Your task to perform on an android device: Do I have any events today? Image 0: 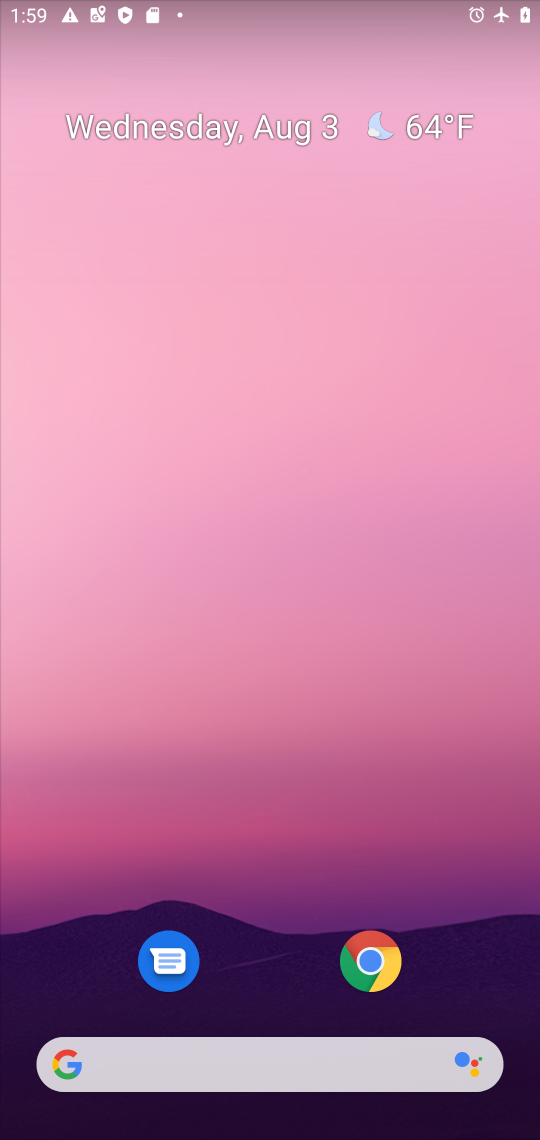
Step 0: drag from (275, 925) to (296, 68)
Your task to perform on an android device: Do I have any events today? Image 1: 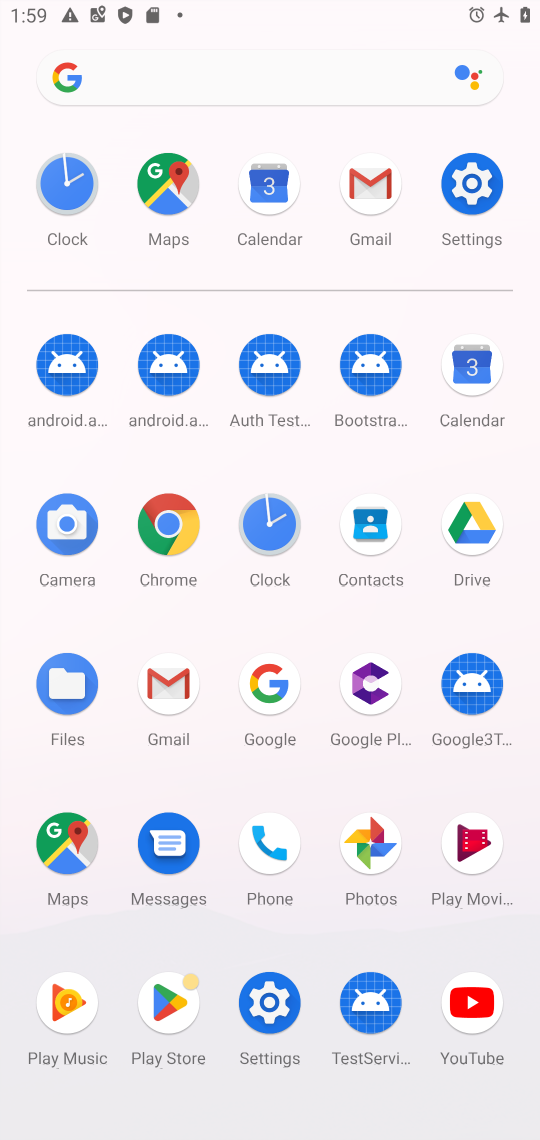
Step 1: click (464, 373)
Your task to perform on an android device: Do I have any events today? Image 2: 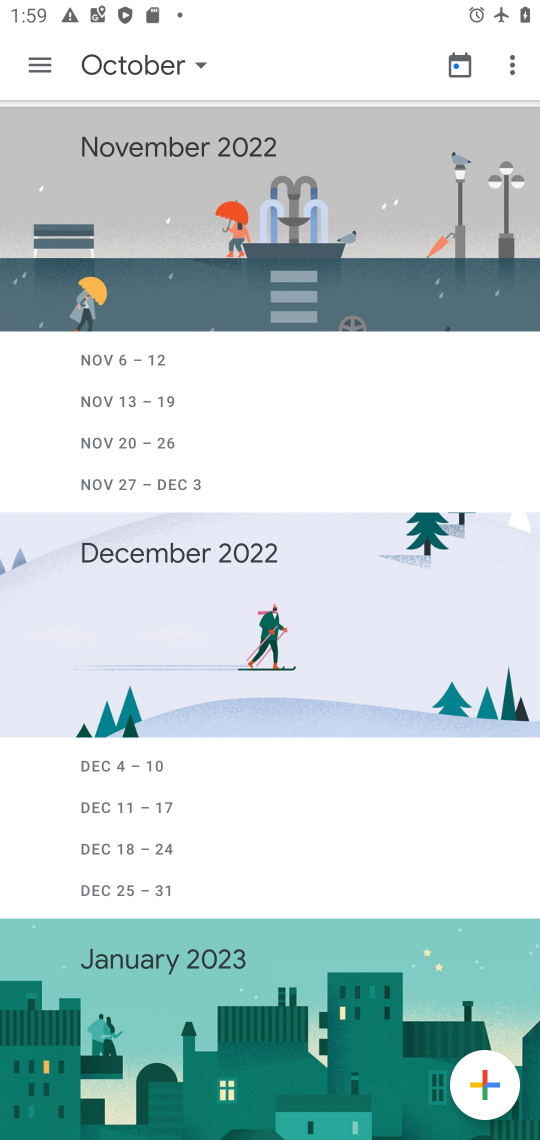
Step 2: click (34, 59)
Your task to perform on an android device: Do I have any events today? Image 3: 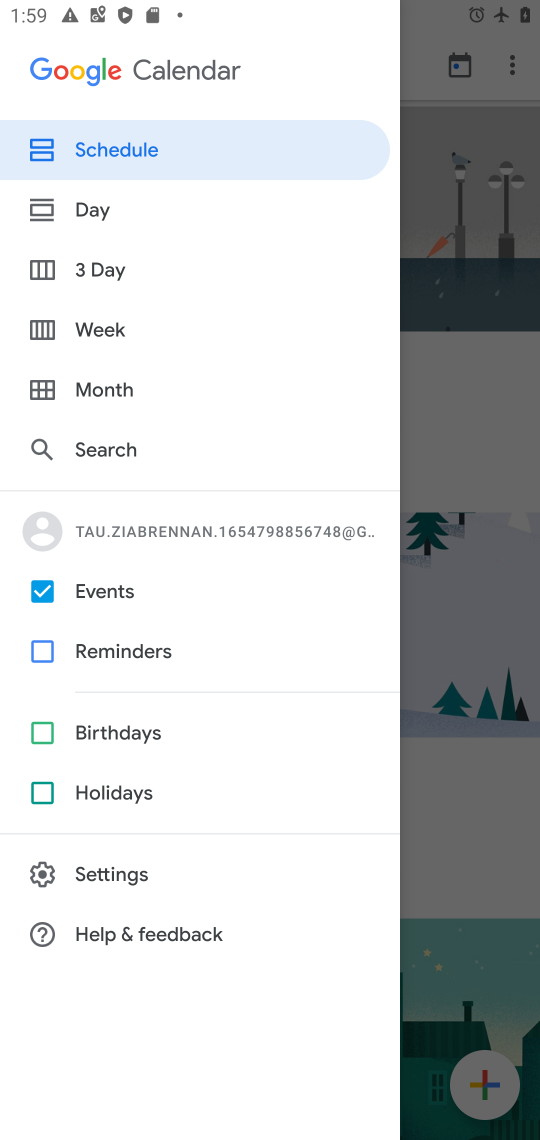
Step 3: click (45, 213)
Your task to perform on an android device: Do I have any events today? Image 4: 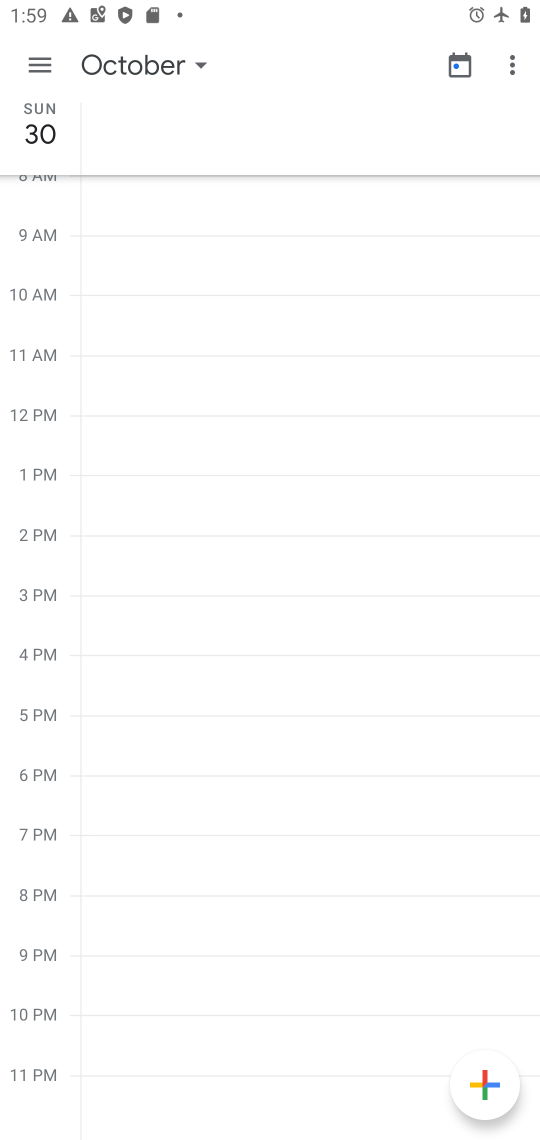
Step 4: click (456, 69)
Your task to perform on an android device: Do I have any events today? Image 5: 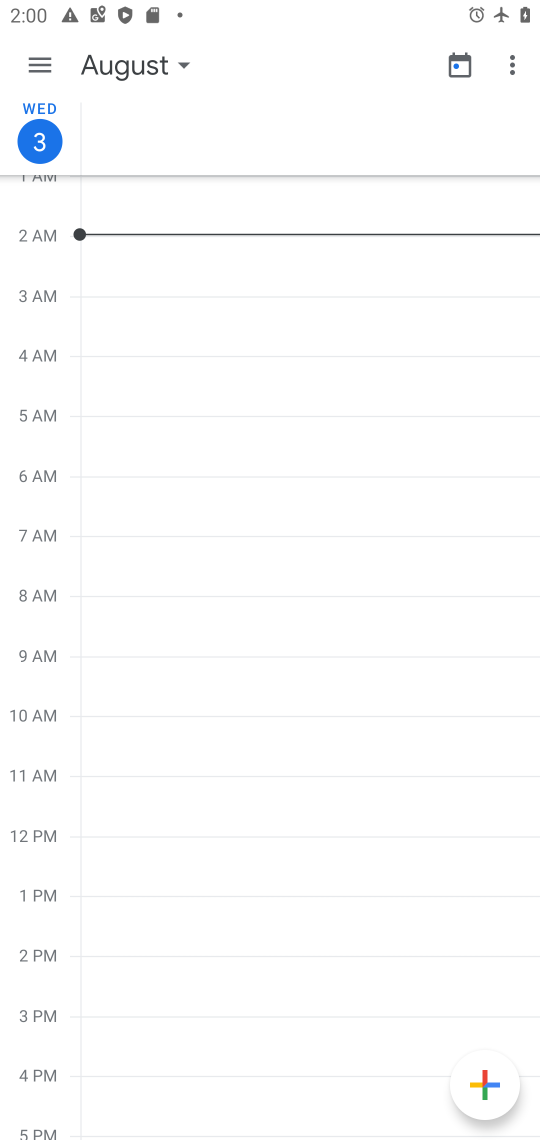
Step 5: drag from (274, 535) to (289, 1012)
Your task to perform on an android device: Do I have any events today? Image 6: 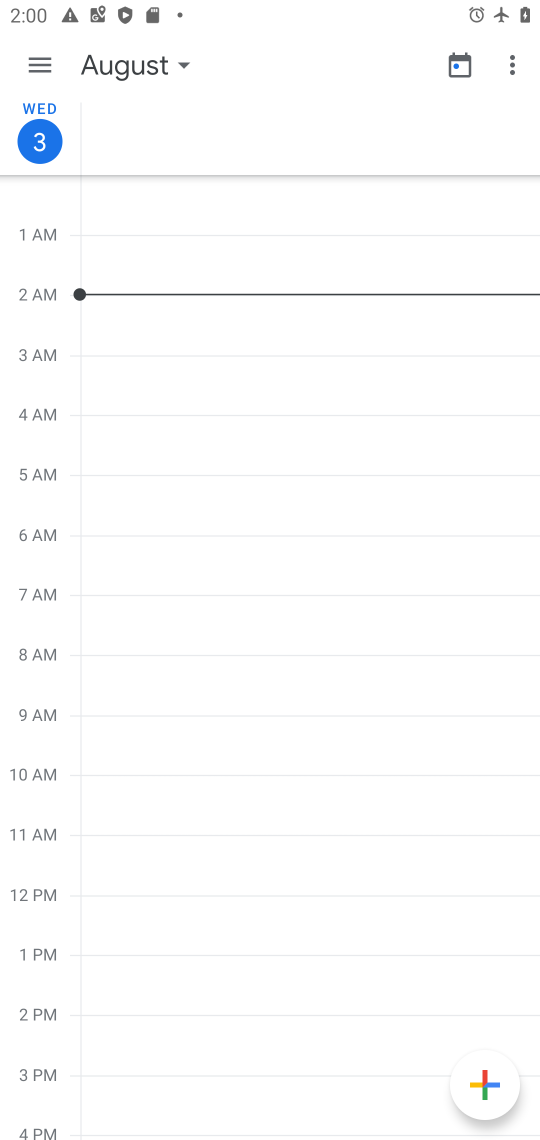
Step 6: drag from (289, 974) to (261, 367)
Your task to perform on an android device: Do I have any events today? Image 7: 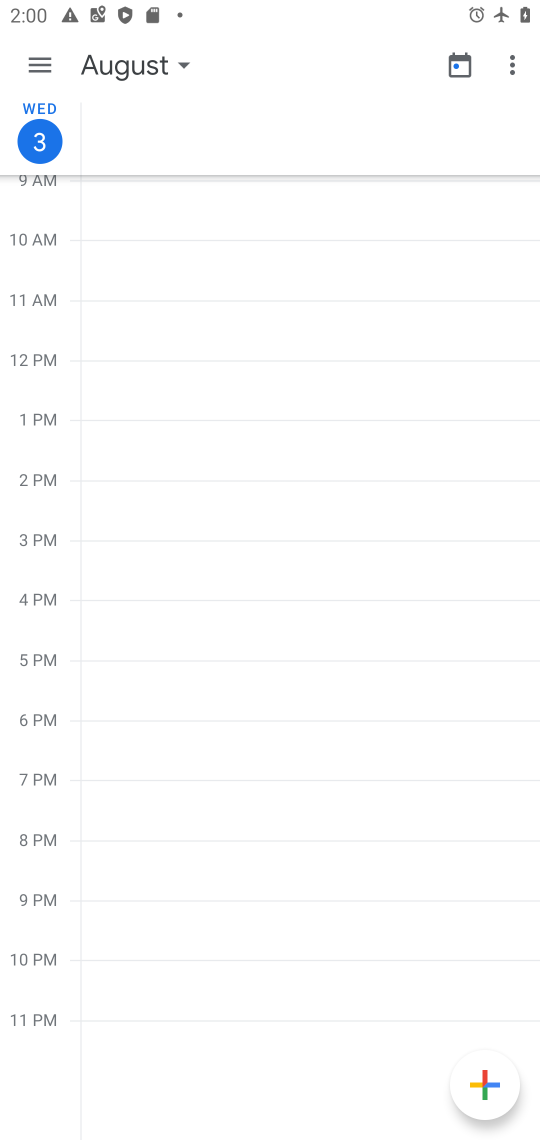
Step 7: click (34, 65)
Your task to perform on an android device: Do I have any events today? Image 8: 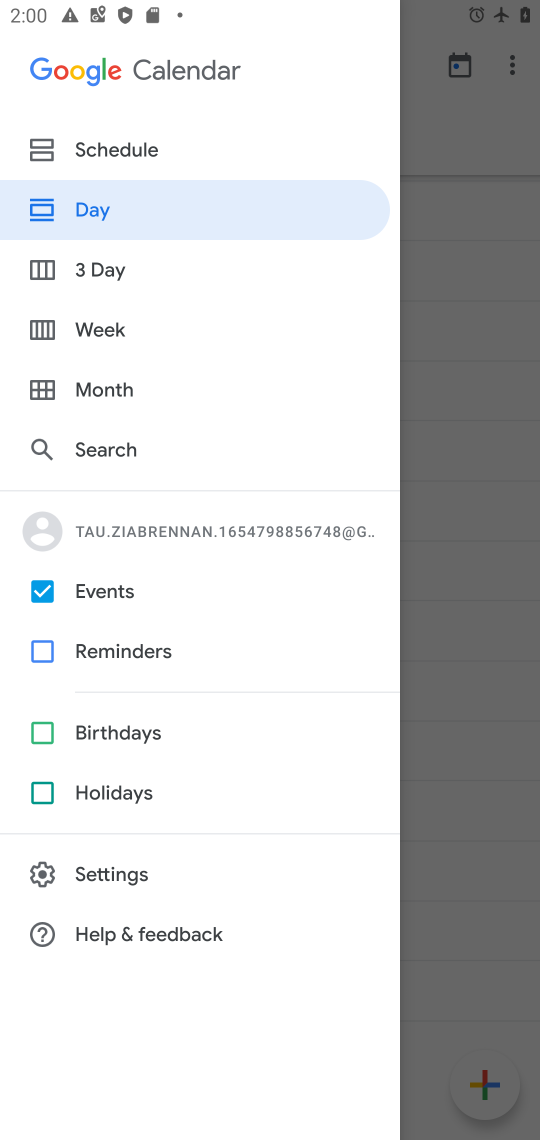
Step 8: click (54, 230)
Your task to perform on an android device: Do I have any events today? Image 9: 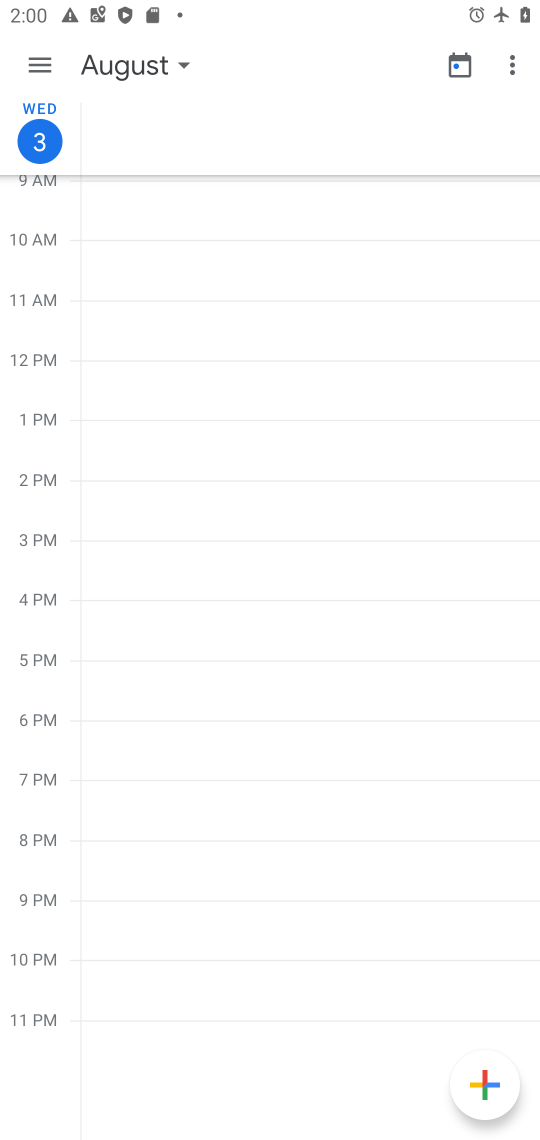
Step 9: task complete